Your task to perform on an android device: turn off improve location accuracy Image 0: 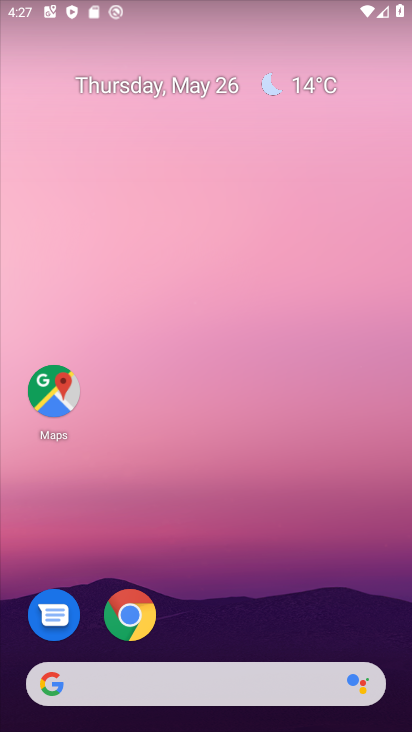
Step 0: drag from (278, 515) to (291, 116)
Your task to perform on an android device: turn off improve location accuracy Image 1: 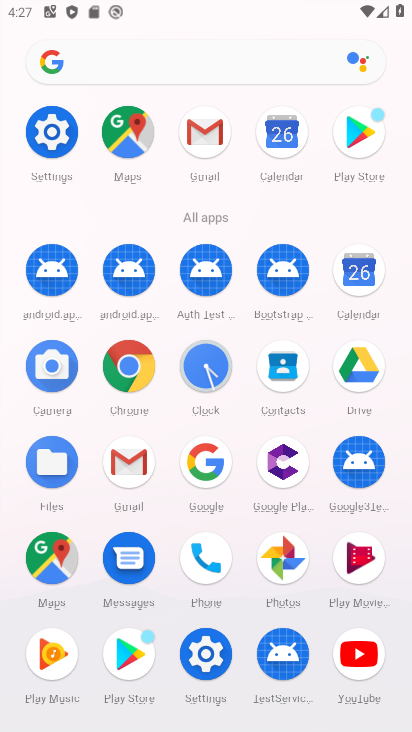
Step 1: click (62, 131)
Your task to perform on an android device: turn off improve location accuracy Image 2: 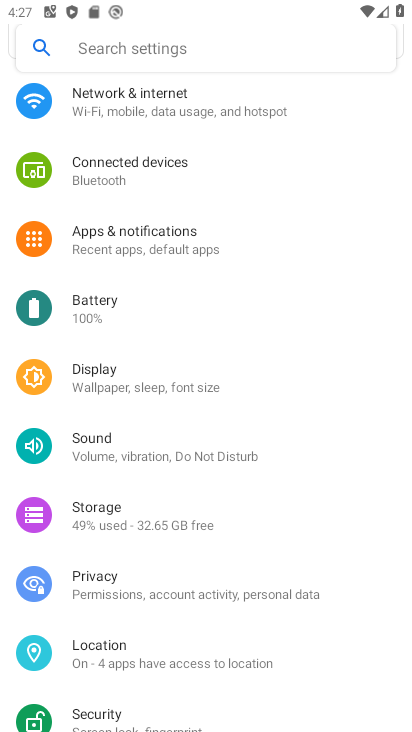
Step 2: drag from (230, 201) to (336, 225)
Your task to perform on an android device: turn off improve location accuracy Image 3: 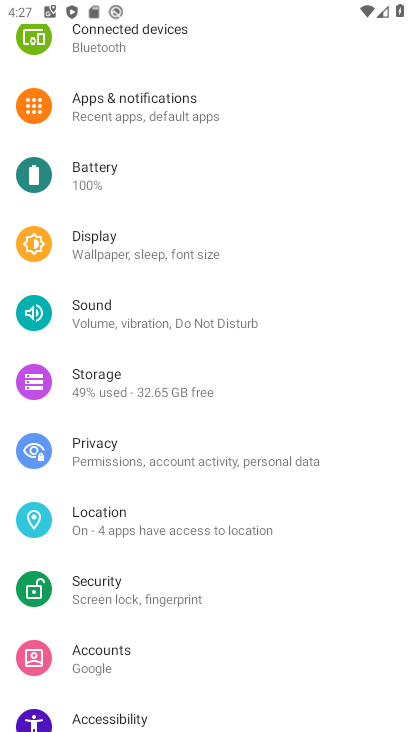
Step 3: click (145, 518)
Your task to perform on an android device: turn off improve location accuracy Image 4: 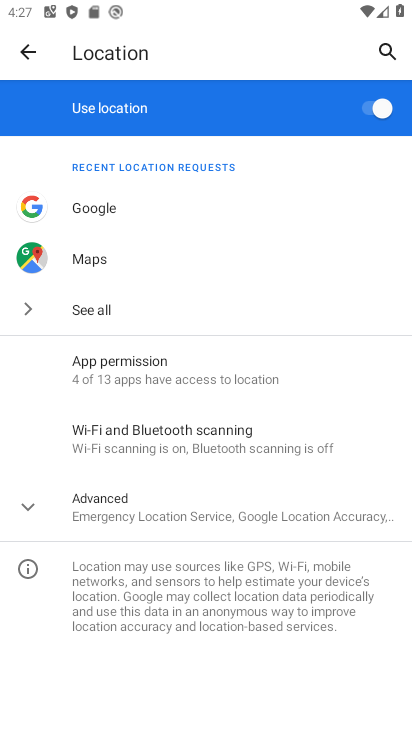
Step 4: drag from (215, 573) to (279, 224)
Your task to perform on an android device: turn off improve location accuracy Image 5: 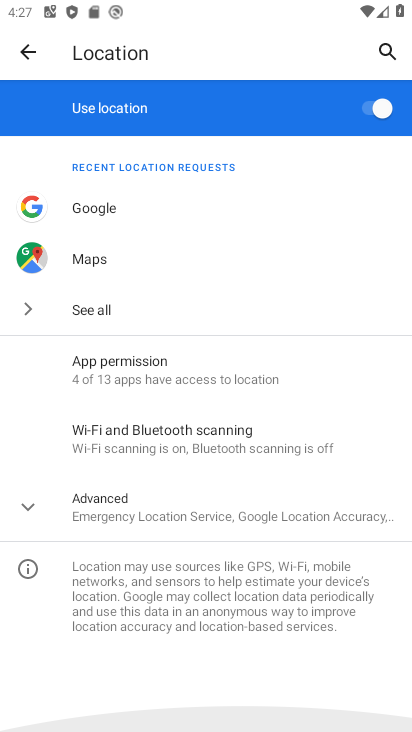
Step 5: click (119, 510)
Your task to perform on an android device: turn off improve location accuracy Image 6: 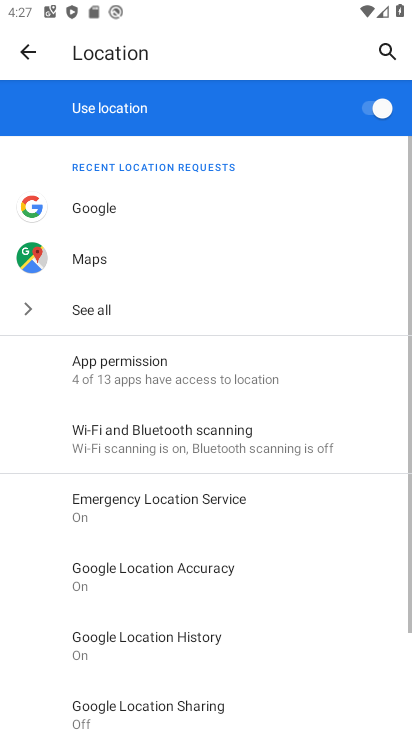
Step 6: drag from (189, 570) to (265, 274)
Your task to perform on an android device: turn off improve location accuracy Image 7: 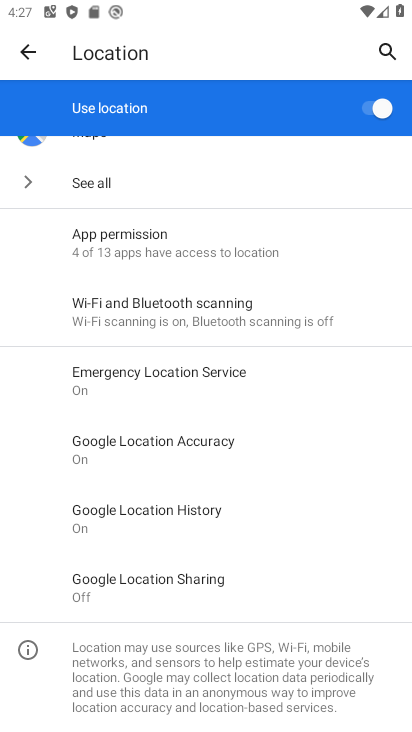
Step 7: click (169, 462)
Your task to perform on an android device: turn off improve location accuracy Image 8: 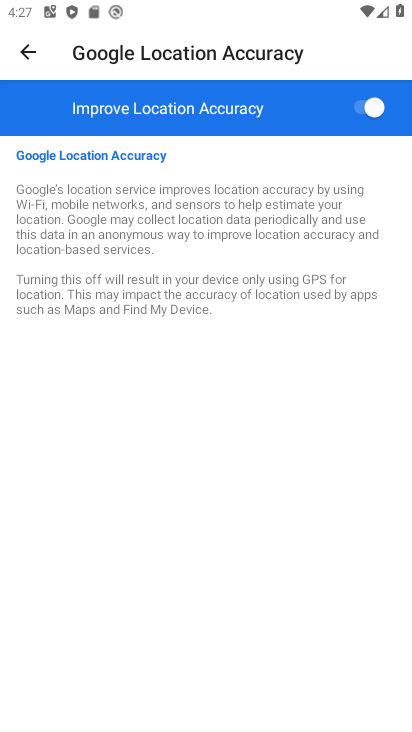
Step 8: click (380, 109)
Your task to perform on an android device: turn off improve location accuracy Image 9: 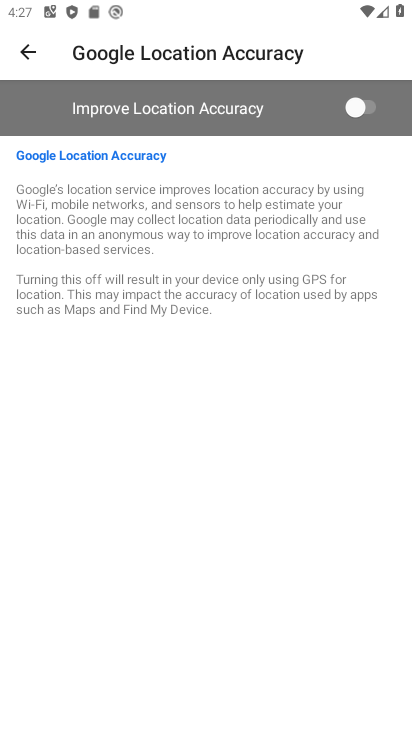
Step 9: task complete